Your task to perform on an android device: Clear the cart on newegg. Image 0: 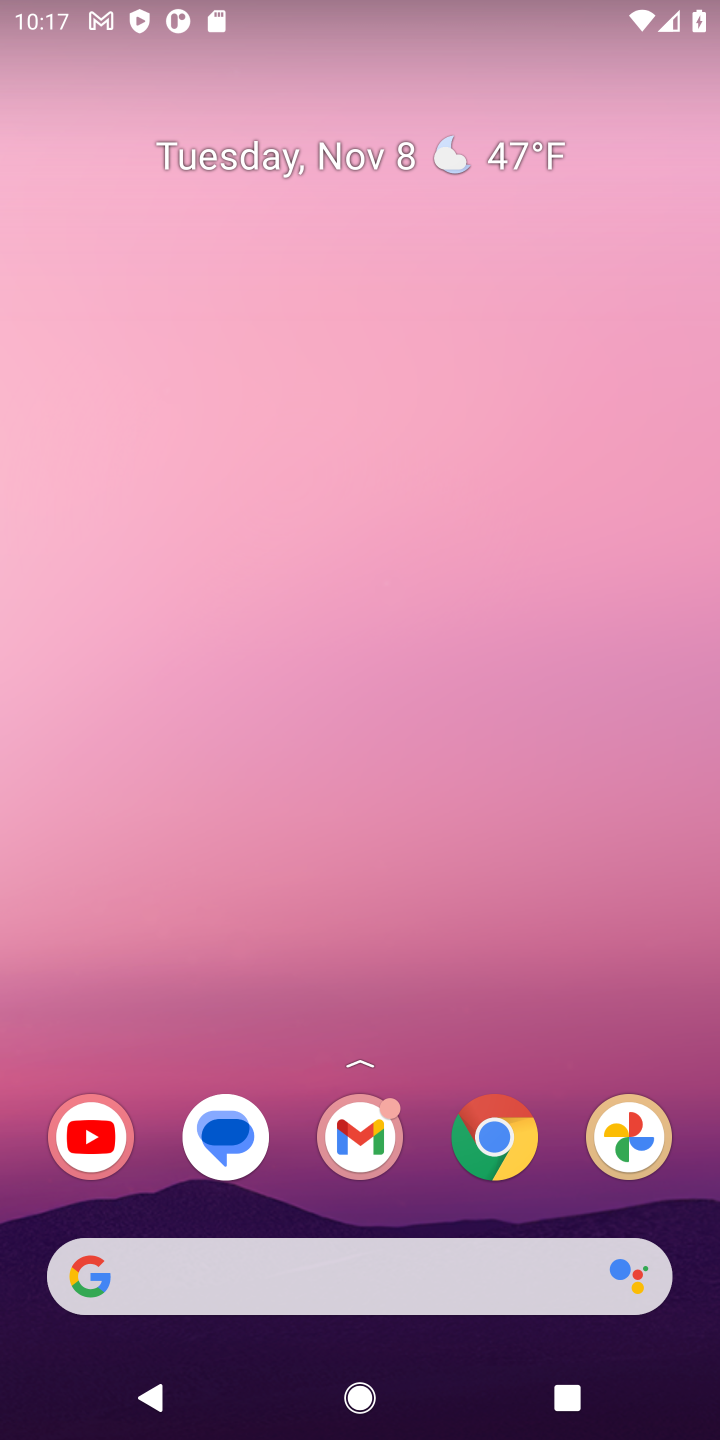
Step 0: click (496, 1136)
Your task to perform on an android device: Clear the cart on newegg. Image 1: 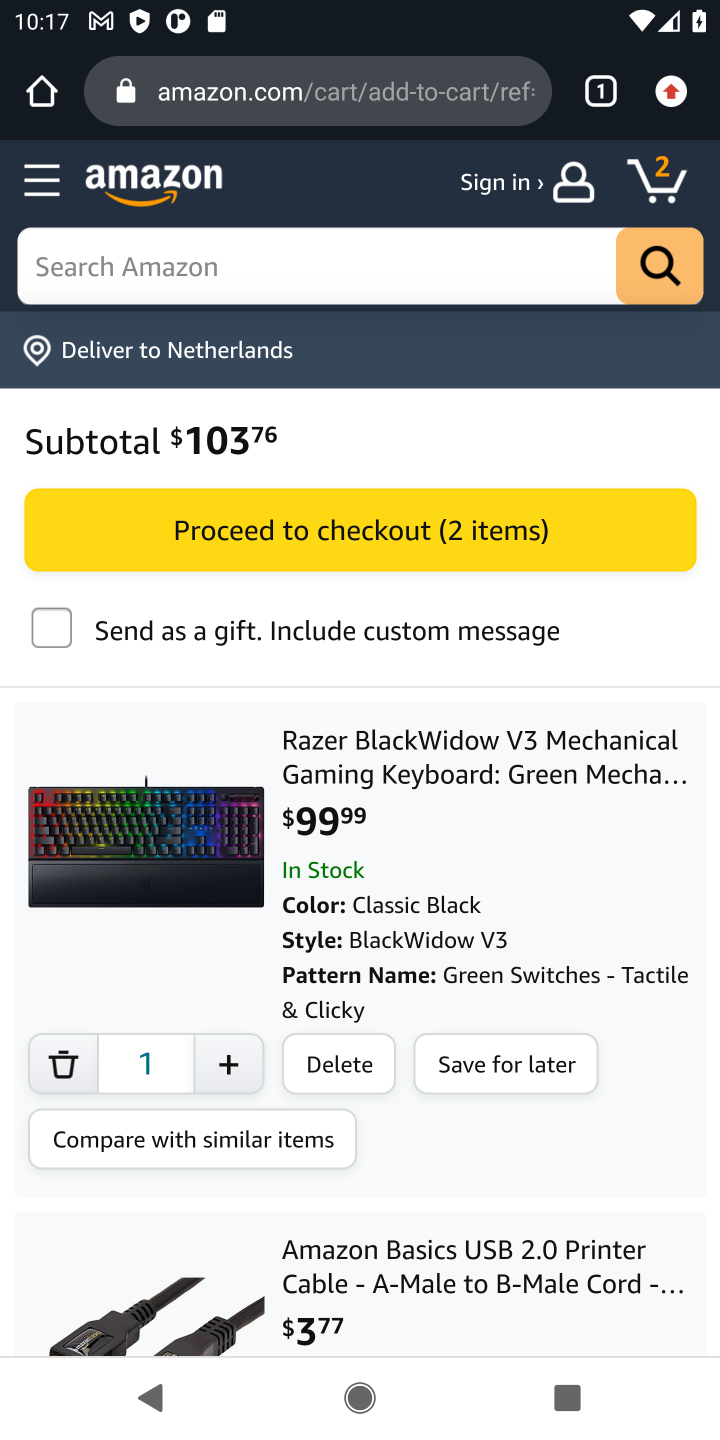
Step 1: click (416, 100)
Your task to perform on an android device: Clear the cart on newegg. Image 2: 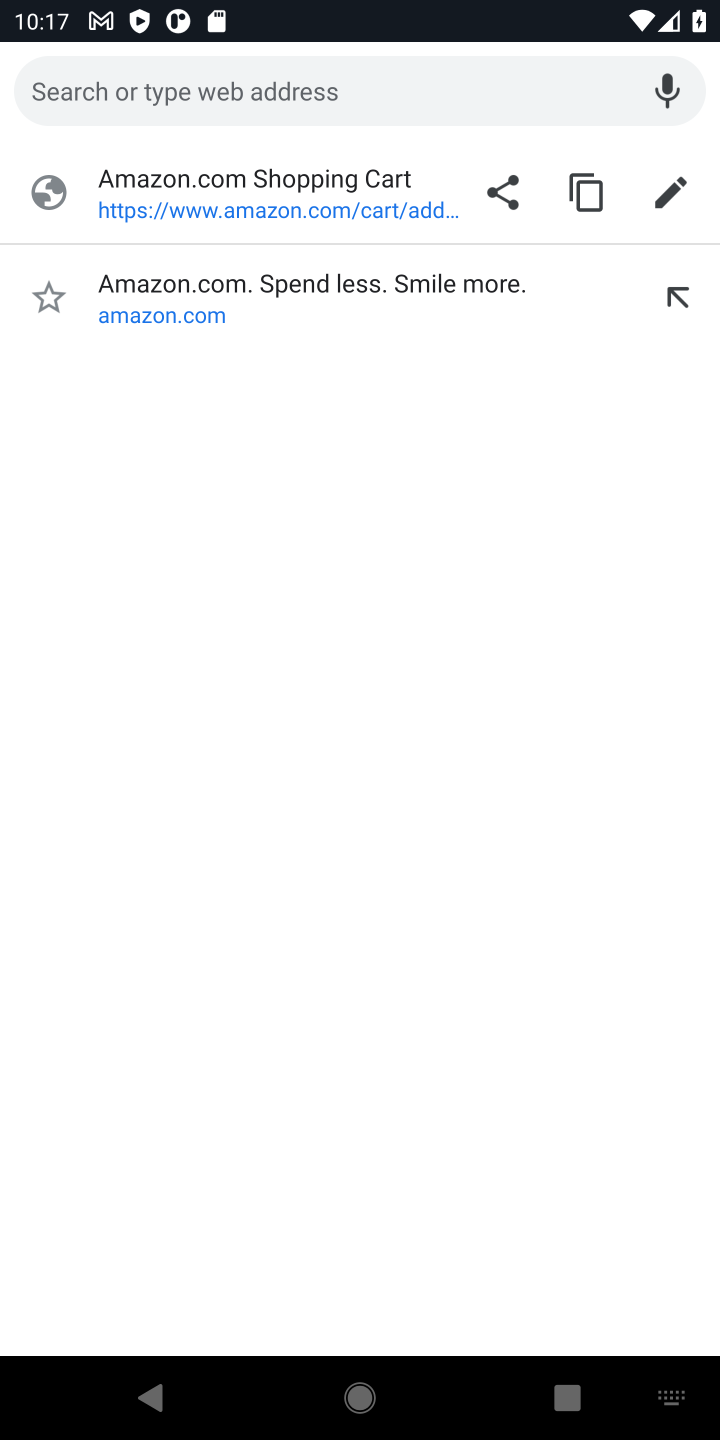
Step 2: type "newegg"
Your task to perform on an android device: Clear the cart on newegg. Image 3: 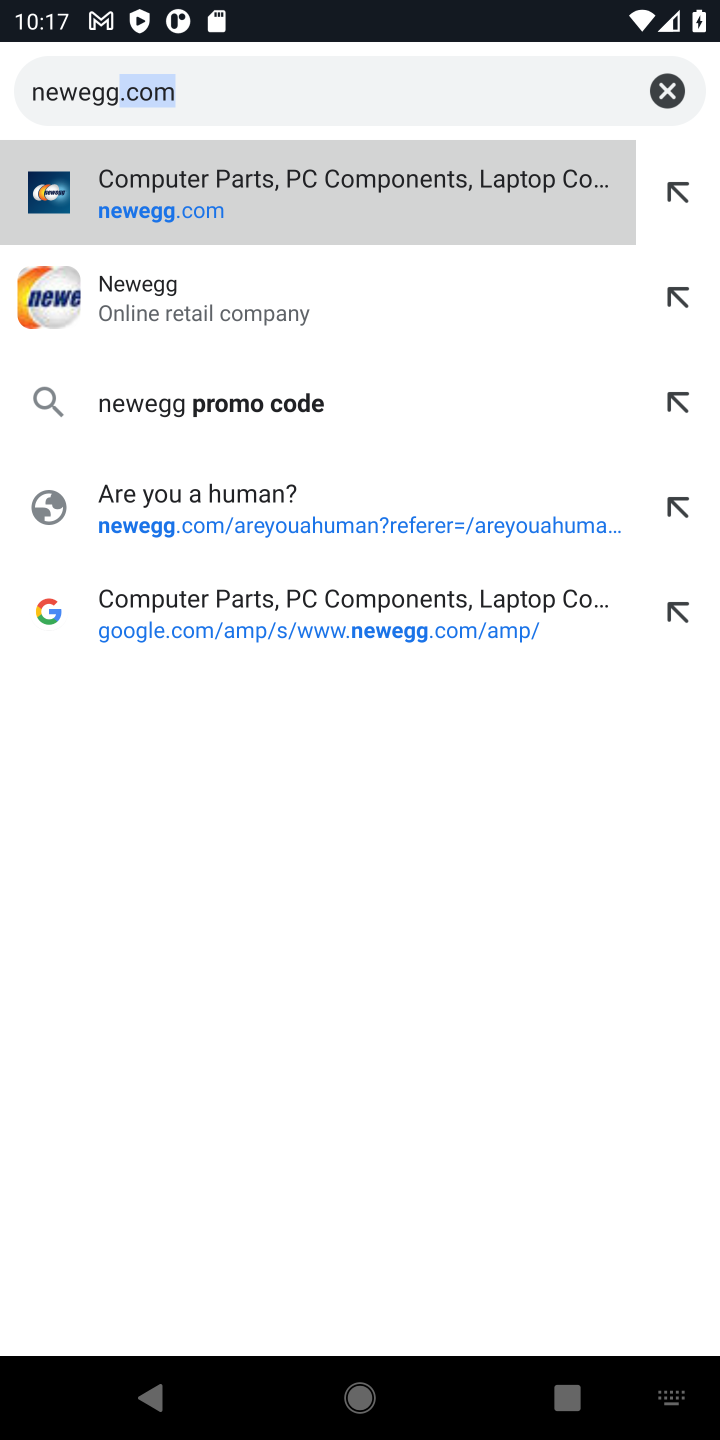
Step 3: click (253, 337)
Your task to perform on an android device: Clear the cart on newegg. Image 4: 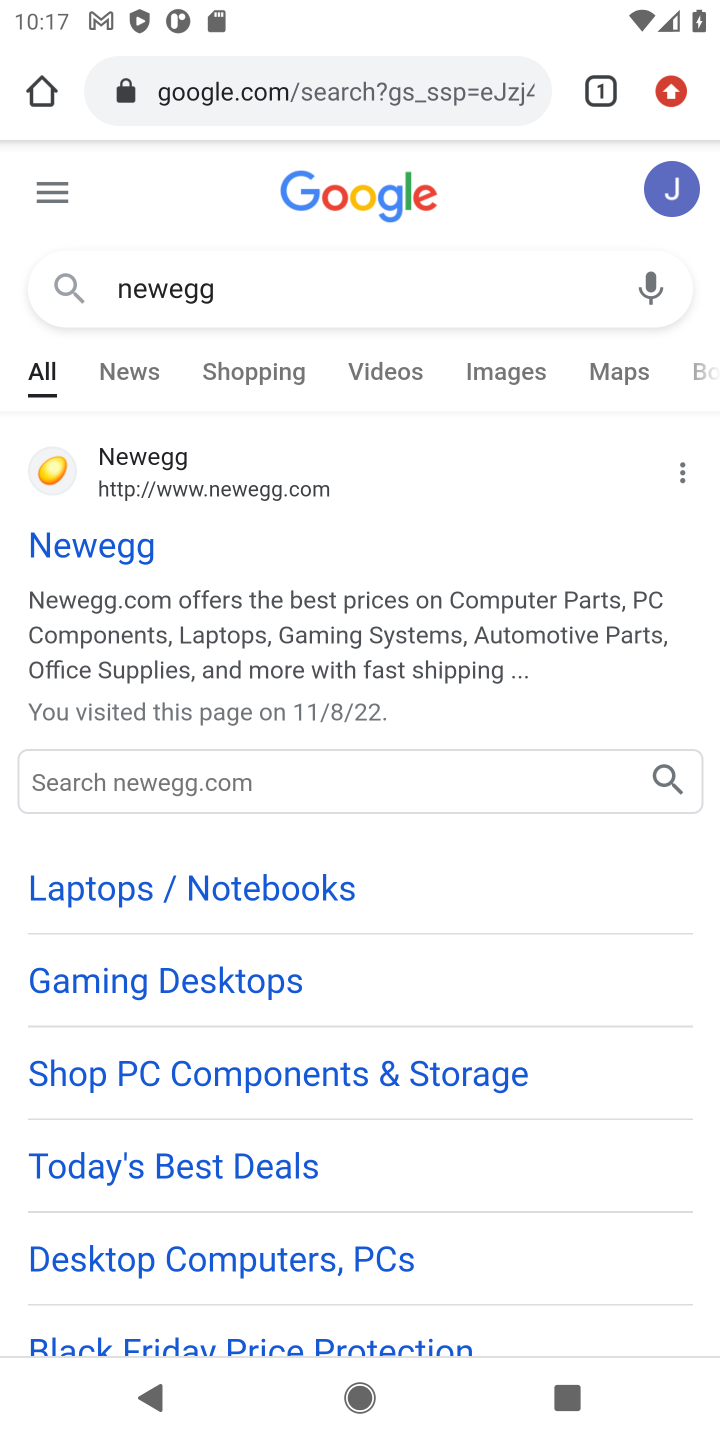
Step 4: click (128, 550)
Your task to perform on an android device: Clear the cart on newegg. Image 5: 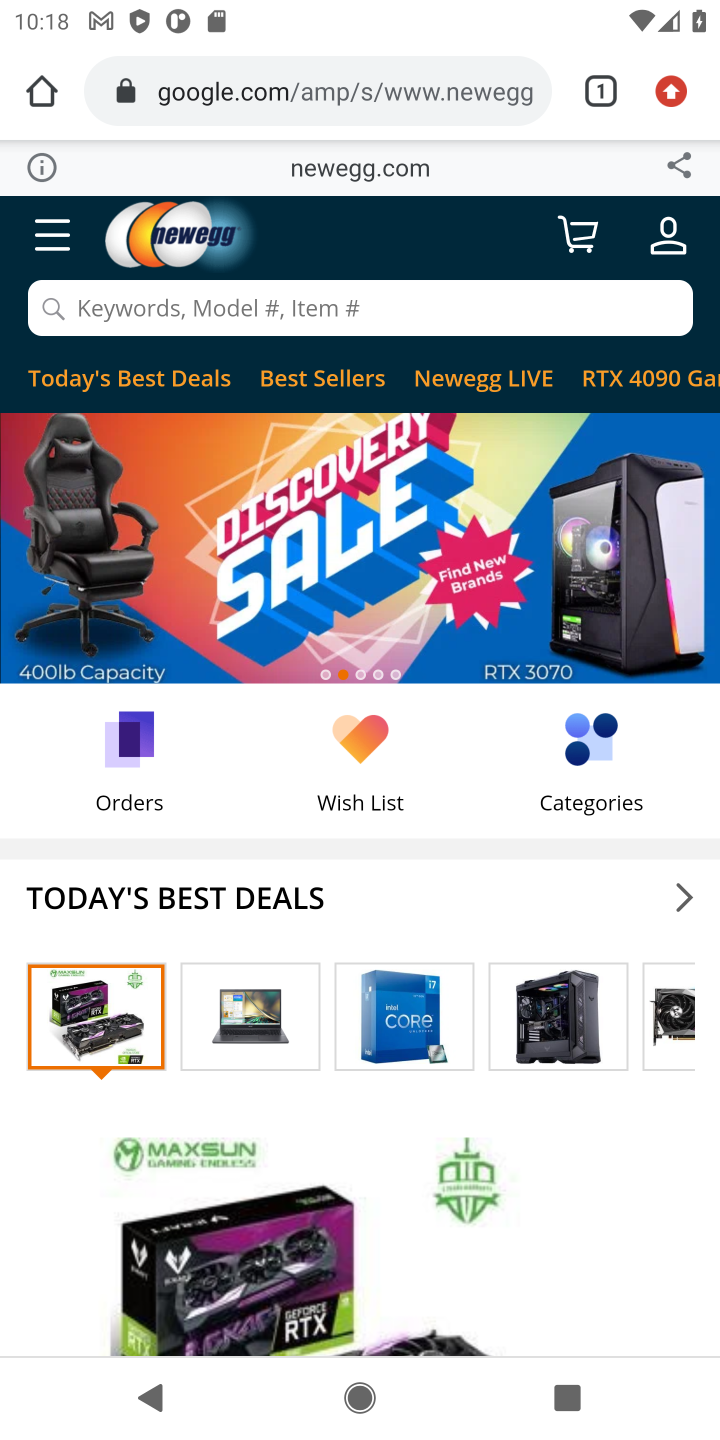
Step 5: click (580, 235)
Your task to perform on an android device: Clear the cart on newegg. Image 6: 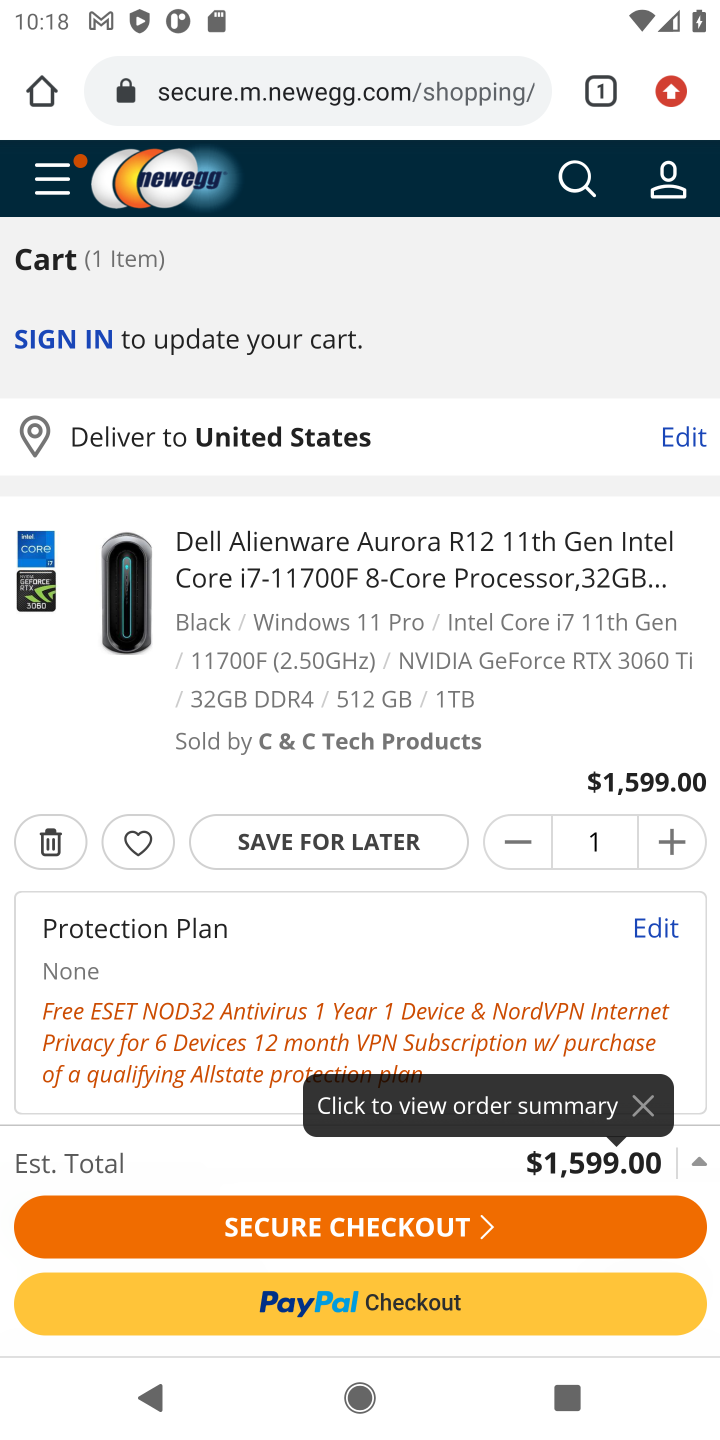
Step 6: click (47, 831)
Your task to perform on an android device: Clear the cart on newegg. Image 7: 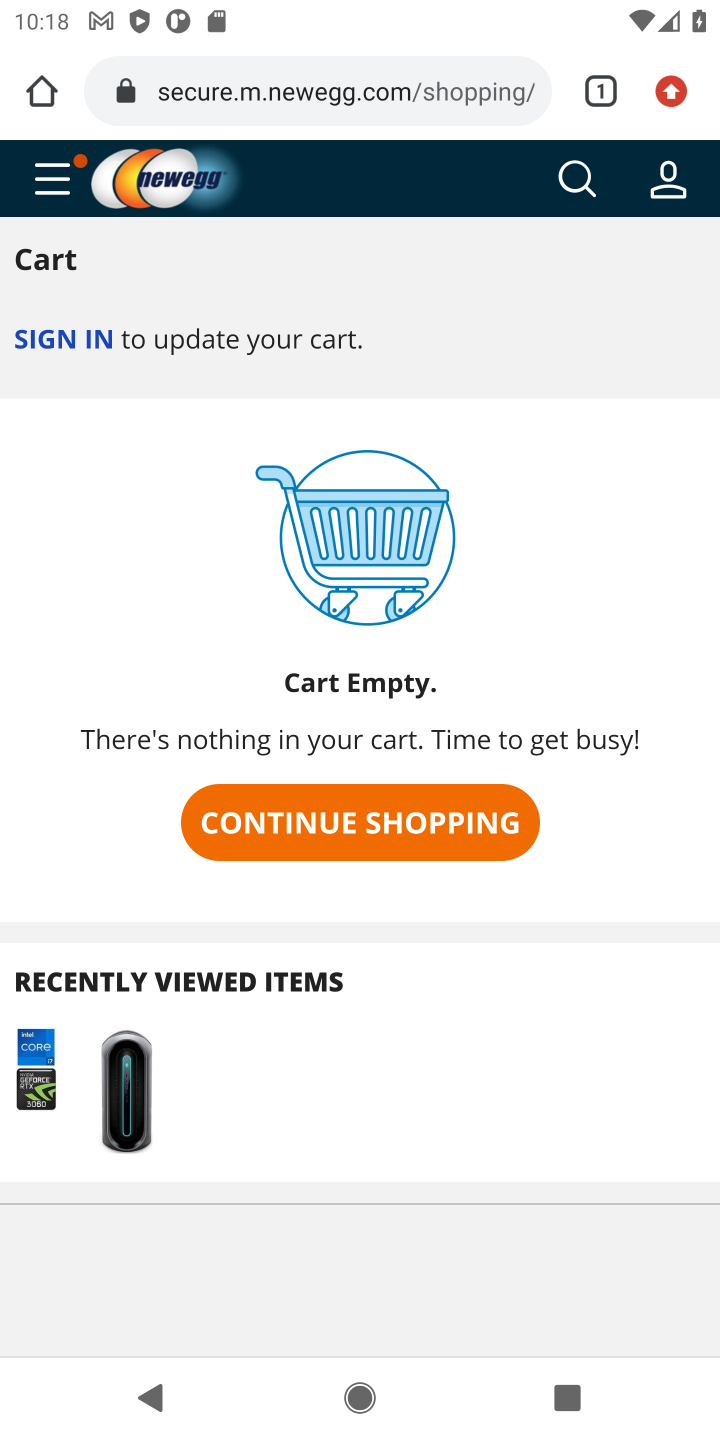
Step 7: task complete